Your task to perform on an android device: Go to Google Image 0: 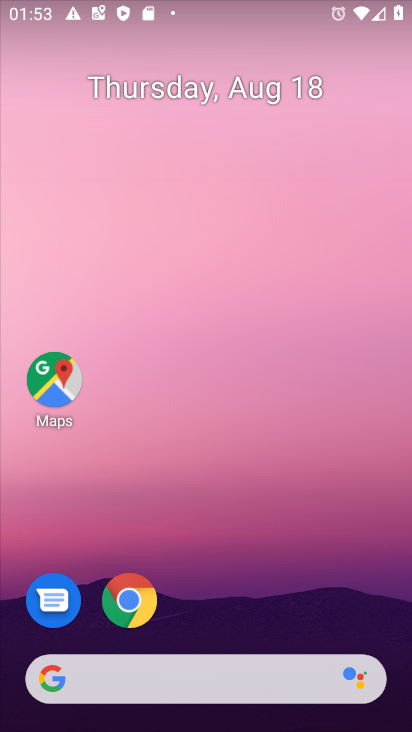
Step 0: press home button
Your task to perform on an android device: Go to Google Image 1: 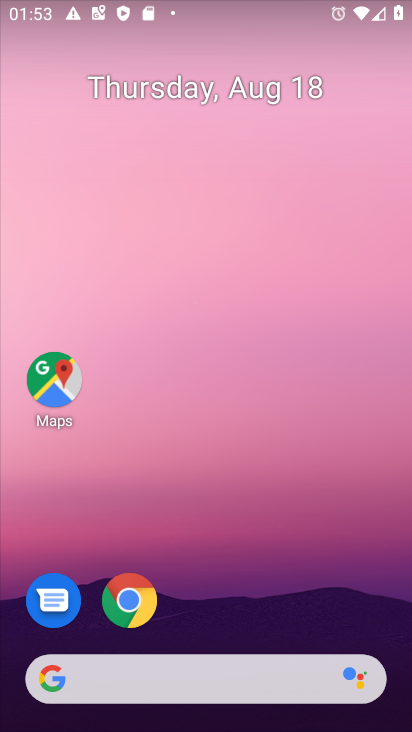
Step 1: drag from (301, 611) to (252, 44)
Your task to perform on an android device: Go to Google Image 2: 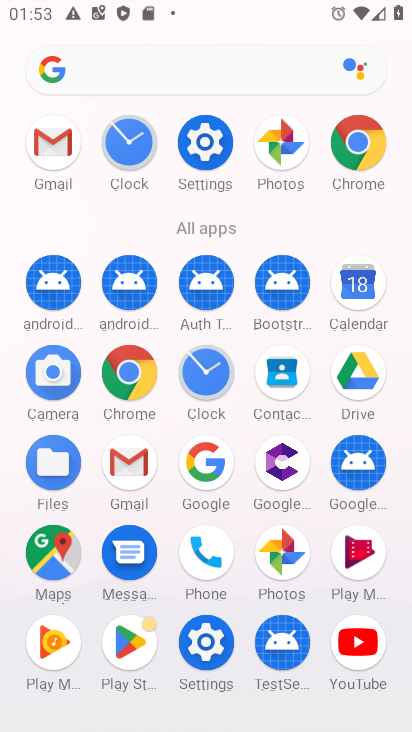
Step 2: click (205, 454)
Your task to perform on an android device: Go to Google Image 3: 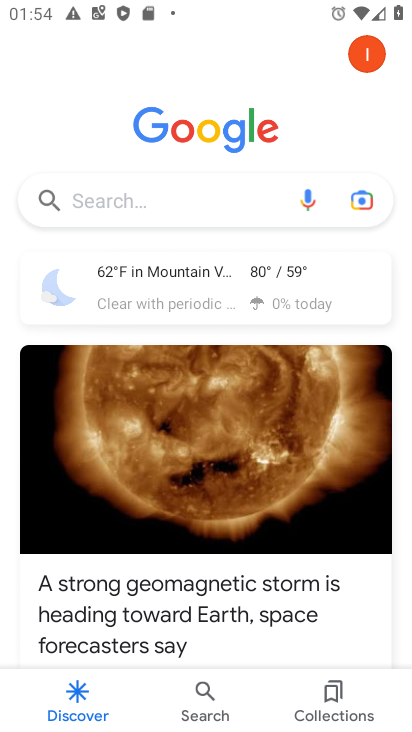
Step 3: task complete